Your task to perform on an android device: Open the web browser Image 0: 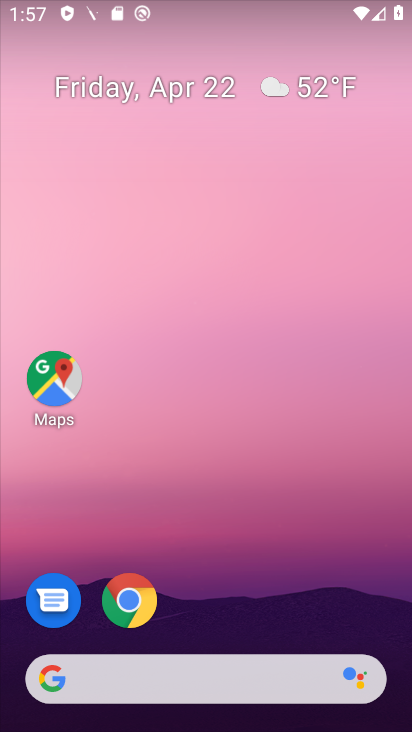
Step 0: drag from (208, 554) to (184, 79)
Your task to perform on an android device: Open the web browser Image 1: 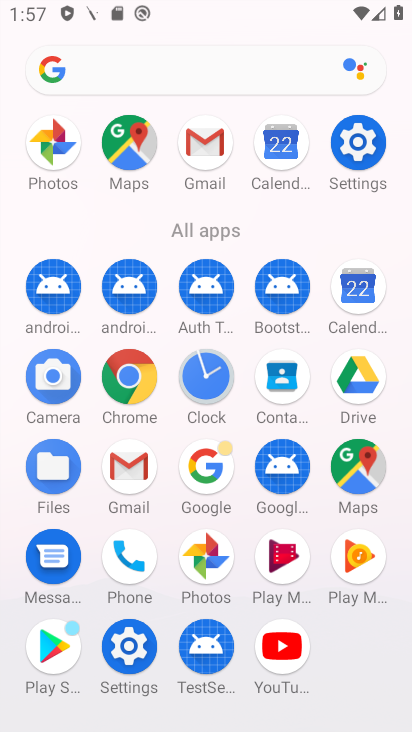
Step 1: drag from (6, 522) to (0, 229)
Your task to perform on an android device: Open the web browser Image 2: 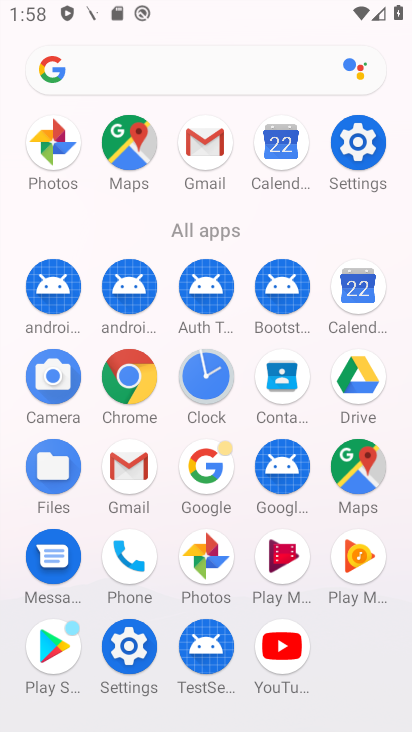
Step 2: click (128, 373)
Your task to perform on an android device: Open the web browser Image 3: 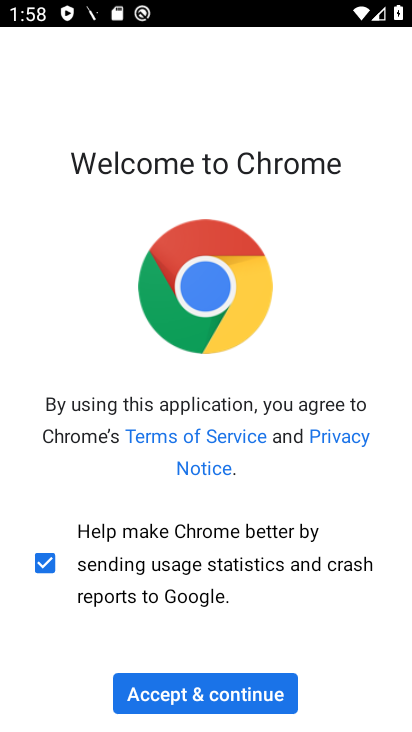
Step 3: click (214, 691)
Your task to perform on an android device: Open the web browser Image 4: 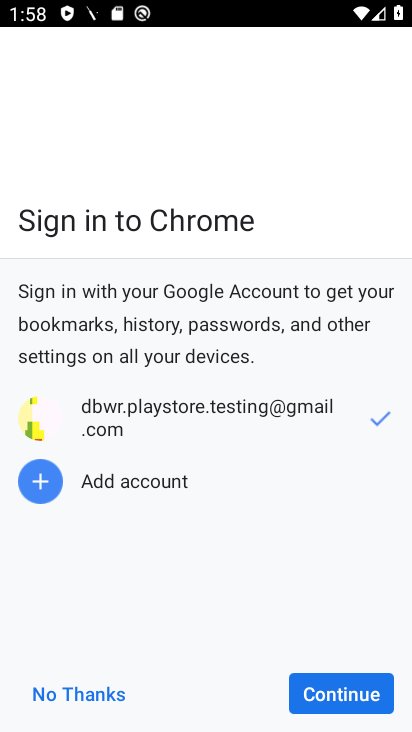
Step 4: click (363, 706)
Your task to perform on an android device: Open the web browser Image 5: 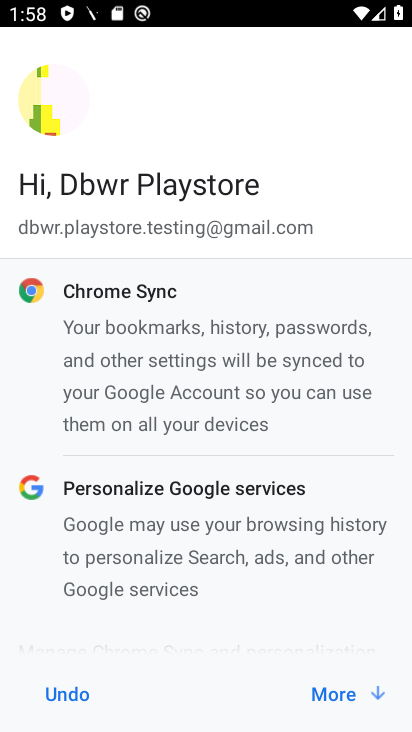
Step 5: click (360, 700)
Your task to perform on an android device: Open the web browser Image 6: 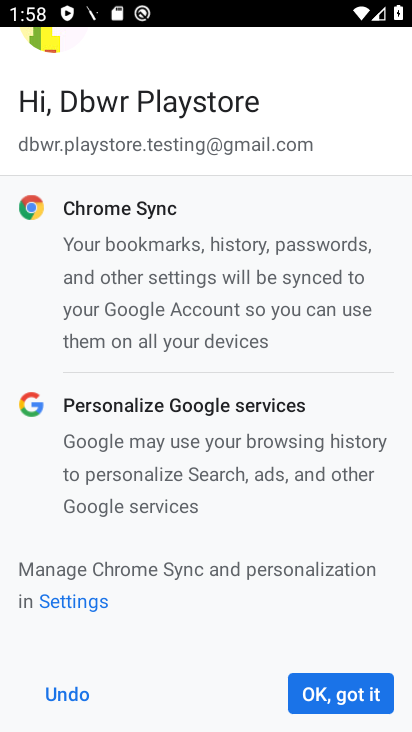
Step 6: click (355, 691)
Your task to perform on an android device: Open the web browser Image 7: 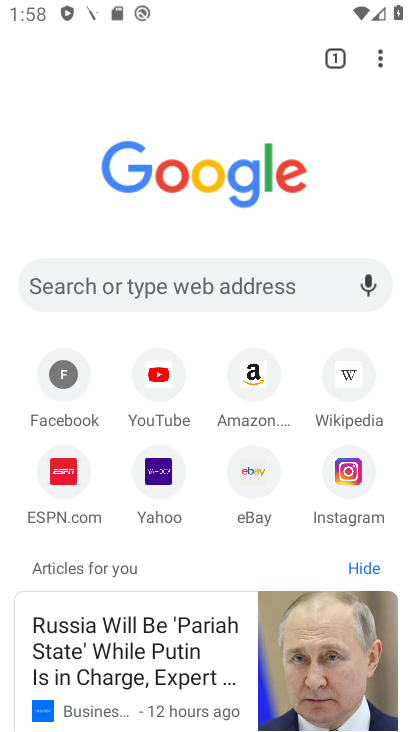
Step 7: task complete